Your task to perform on an android device: toggle wifi Image 0: 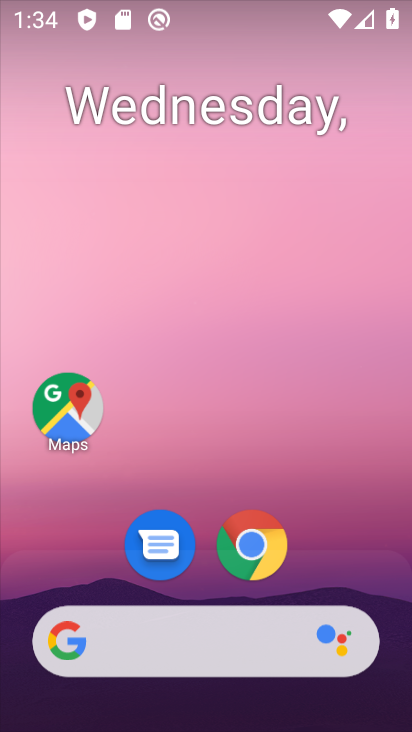
Step 0: drag from (330, 546) to (282, 69)
Your task to perform on an android device: toggle wifi Image 1: 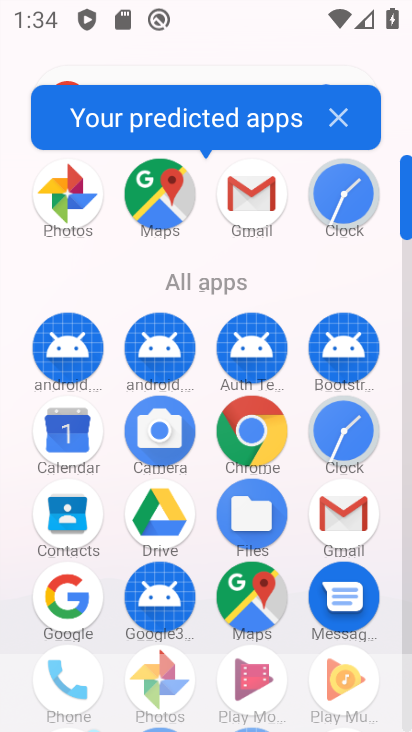
Step 1: drag from (305, 561) to (280, 198)
Your task to perform on an android device: toggle wifi Image 2: 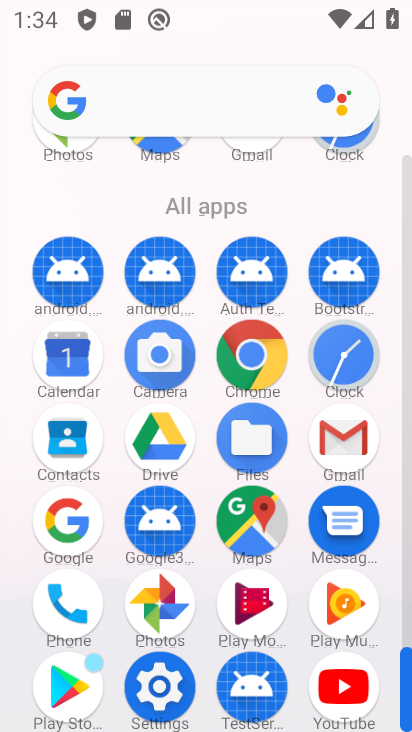
Step 2: click (172, 683)
Your task to perform on an android device: toggle wifi Image 3: 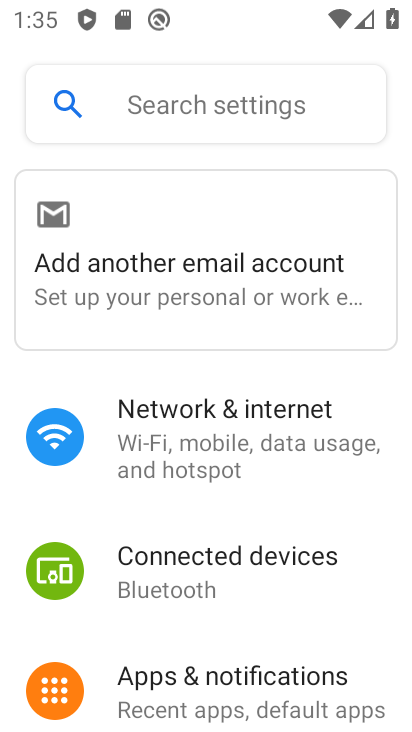
Step 3: click (211, 408)
Your task to perform on an android device: toggle wifi Image 4: 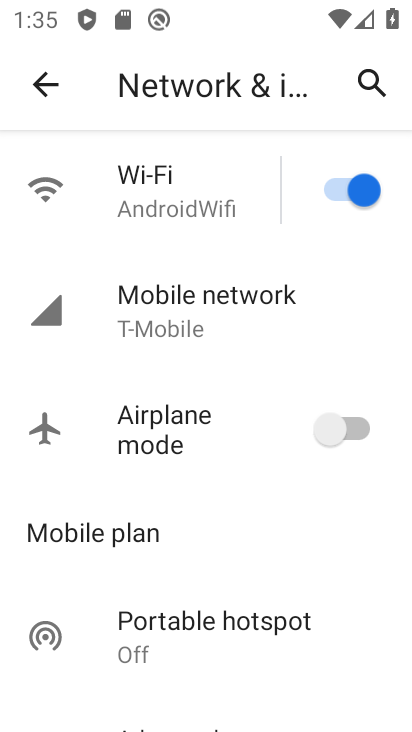
Step 4: click (344, 193)
Your task to perform on an android device: toggle wifi Image 5: 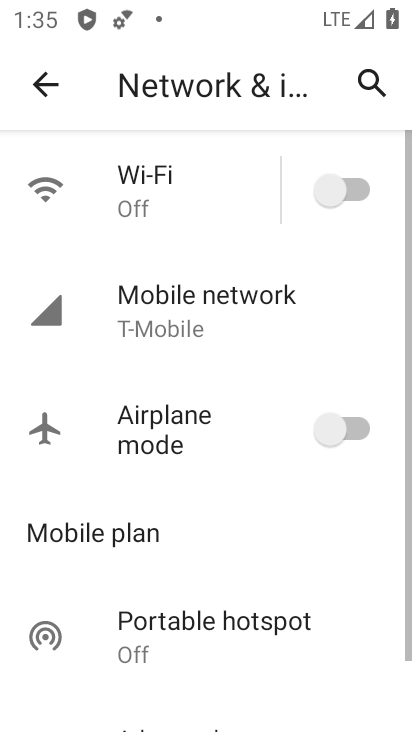
Step 5: task complete